Your task to perform on an android device: turn off sleep mode Image 0: 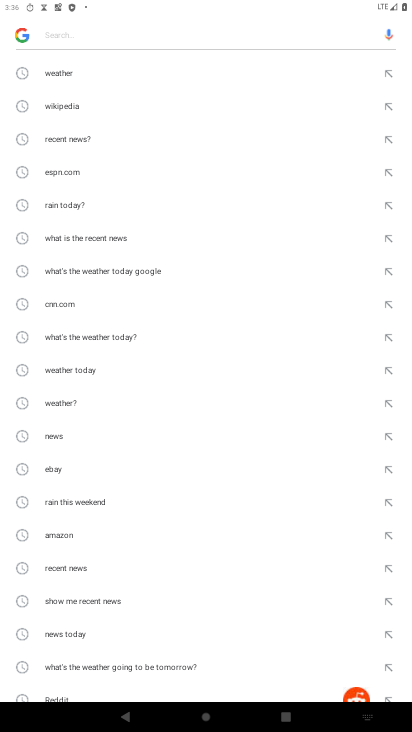
Step 0: press home button
Your task to perform on an android device: turn off sleep mode Image 1: 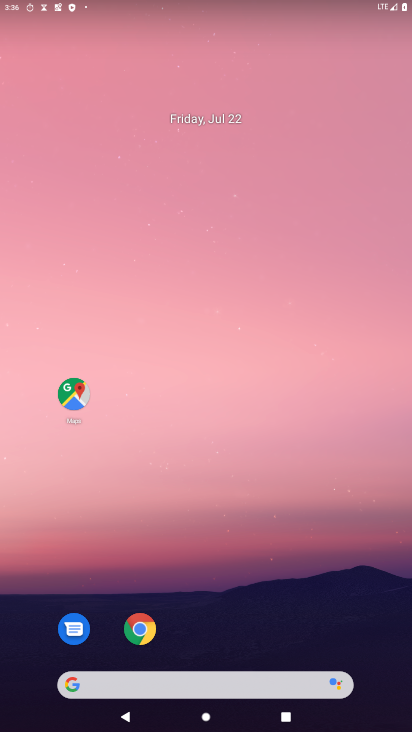
Step 1: drag from (286, 666) to (256, 33)
Your task to perform on an android device: turn off sleep mode Image 2: 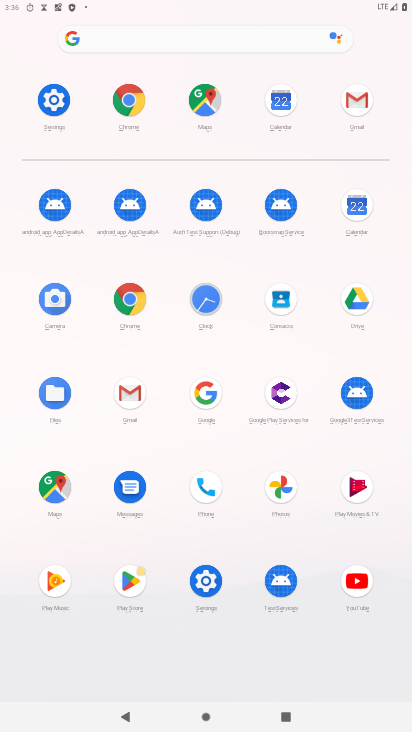
Step 2: click (53, 100)
Your task to perform on an android device: turn off sleep mode Image 3: 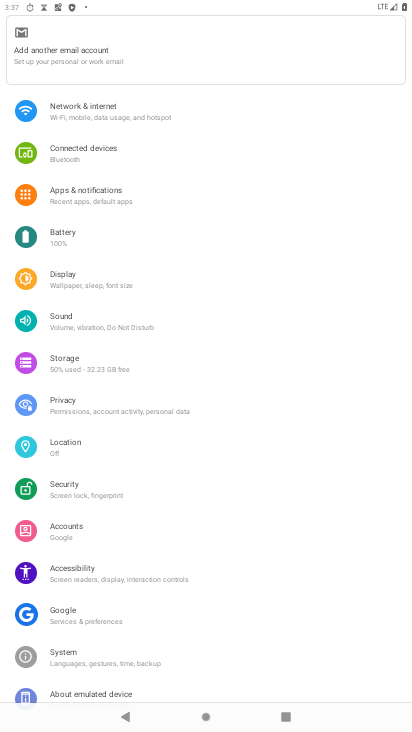
Step 3: click (104, 286)
Your task to perform on an android device: turn off sleep mode Image 4: 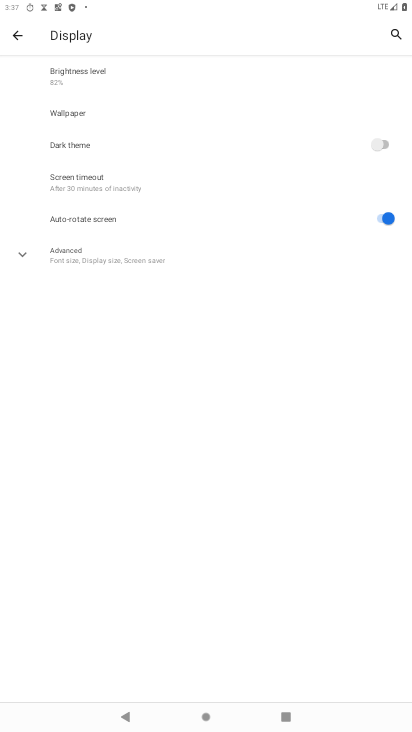
Step 4: task complete